Your task to perform on an android device: Open maps Image 0: 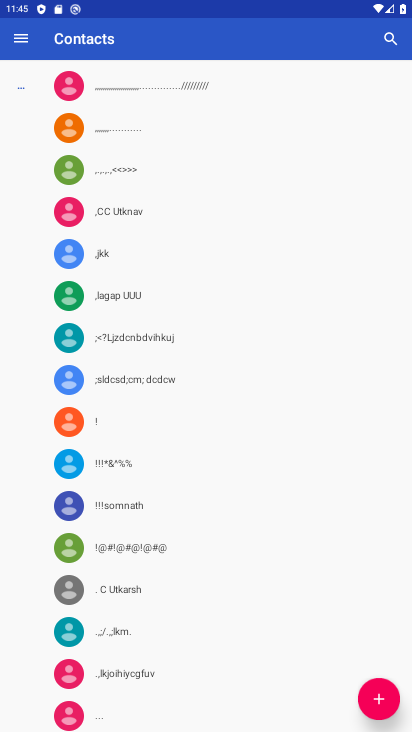
Step 0: press home button
Your task to perform on an android device: Open maps Image 1: 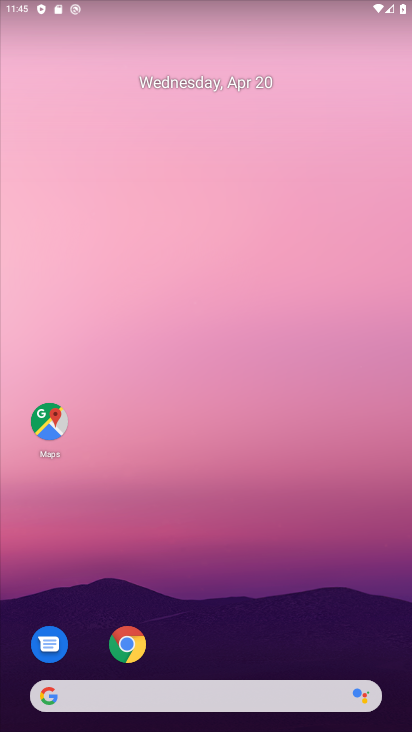
Step 1: click (49, 423)
Your task to perform on an android device: Open maps Image 2: 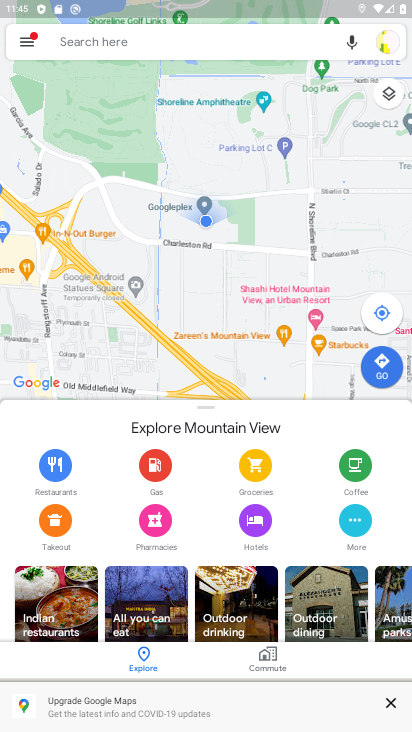
Step 2: task complete